Your task to perform on an android device: Open the web browser Image 0: 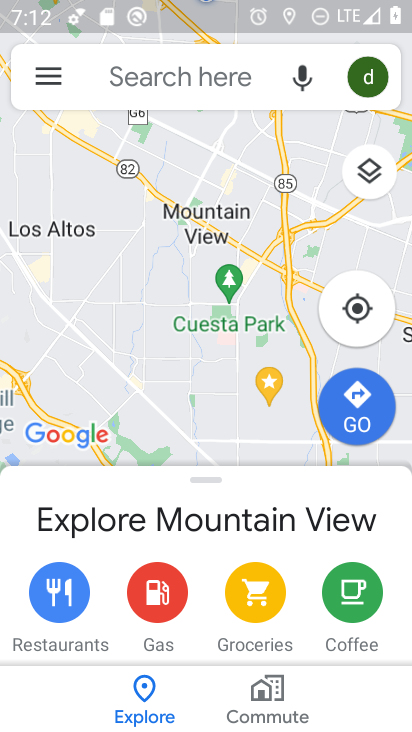
Step 0: press home button
Your task to perform on an android device: Open the web browser Image 1: 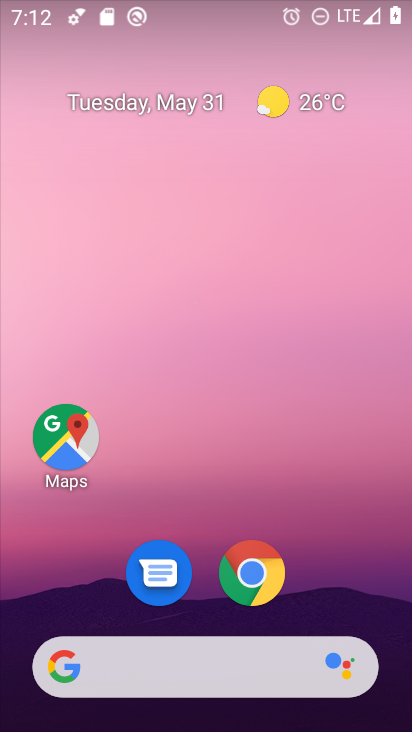
Step 1: drag from (405, 665) to (272, 100)
Your task to perform on an android device: Open the web browser Image 2: 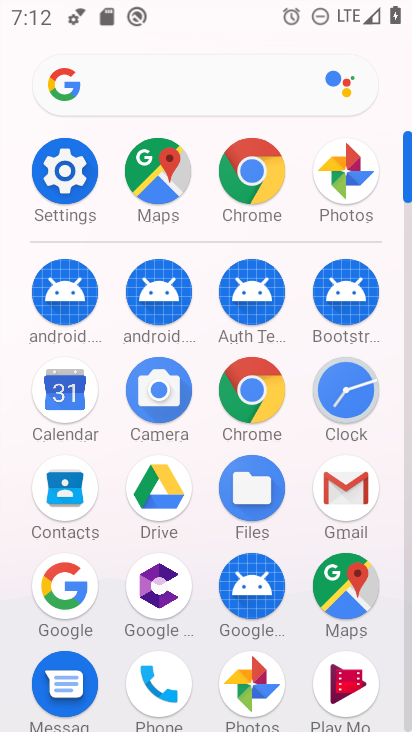
Step 2: click (67, 575)
Your task to perform on an android device: Open the web browser Image 3: 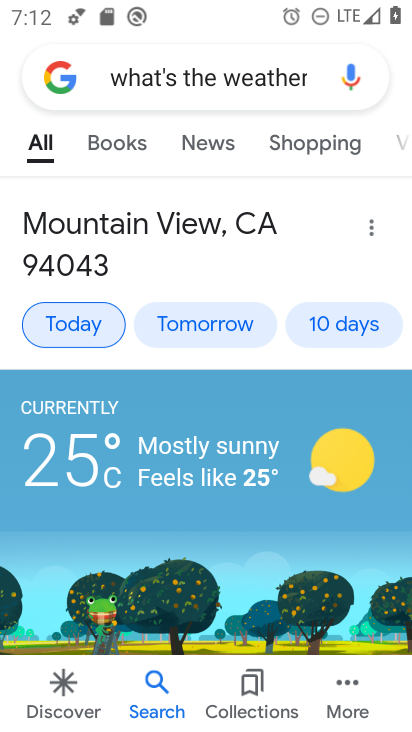
Step 3: press back button
Your task to perform on an android device: Open the web browser Image 4: 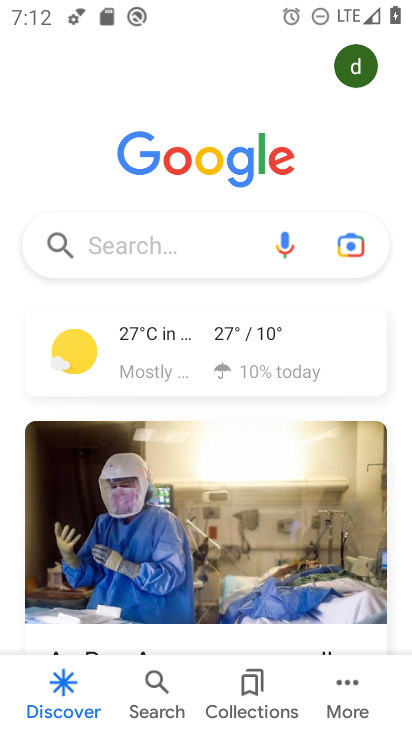
Step 4: click (140, 239)
Your task to perform on an android device: Open the web browser Image 5: 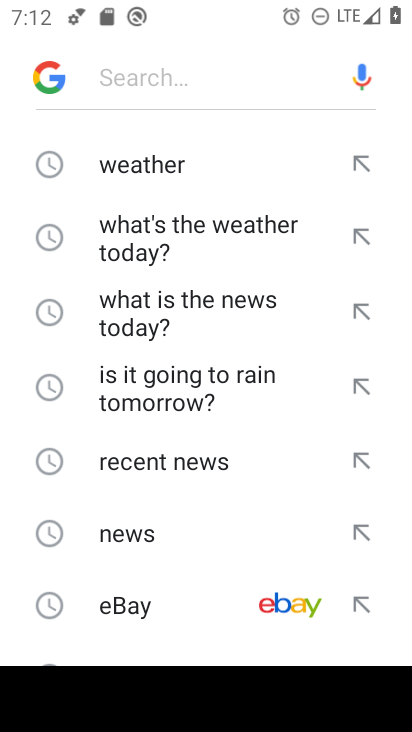
Step 5: type "web browser"
Your task to perform on an android device: Open the web browser Image 6: 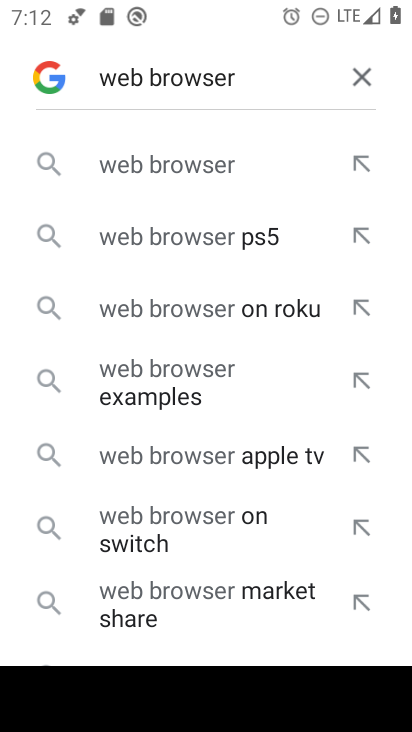
Step 6: click (245, 174)
Your task to perform on an android device: Open the web browser Image 7: 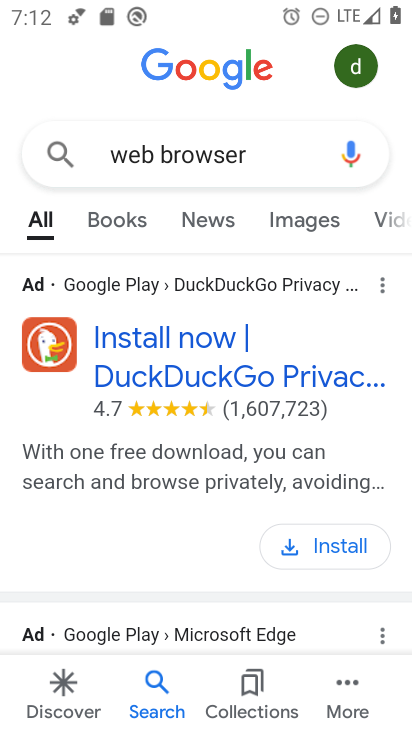
Step 7: task complete